Your task to perform on an android device: Go to internet settings Image 0: 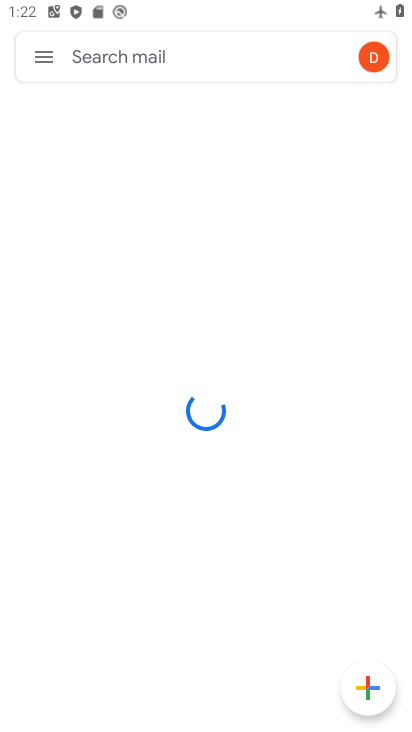
Step 0: press home button
Your task to perform on an android device: Go to internet settings Image 1: 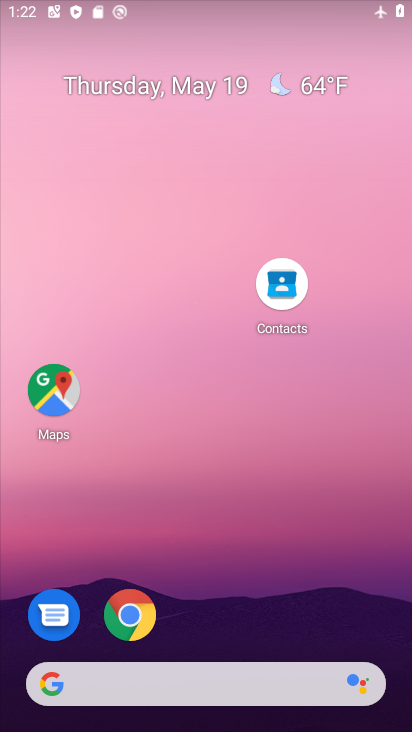
Step 1: drag from (254, 430) to (328, 18)
Your task to perform on an android device: Go to internet settings Image 2: 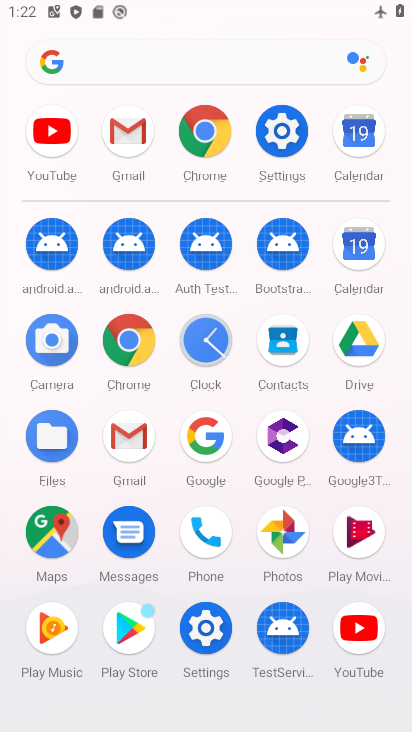
Step 2: click (283, 158)
Your task to perform on an android device: Go to internet settings Image 3: 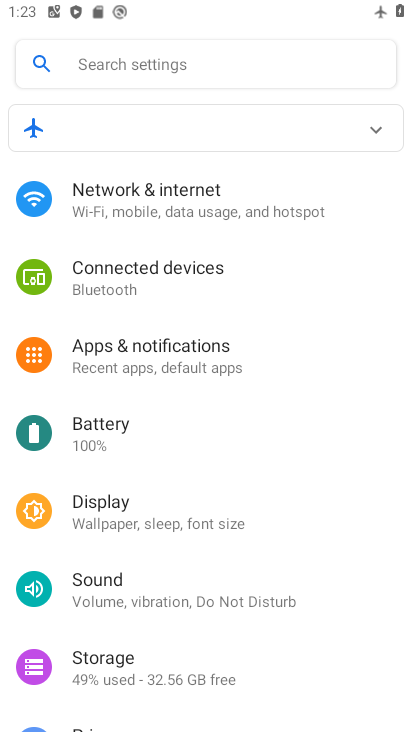
Step 3: click (230, 179)
Your task to perform on an android device: Go to internet settings Image 4: 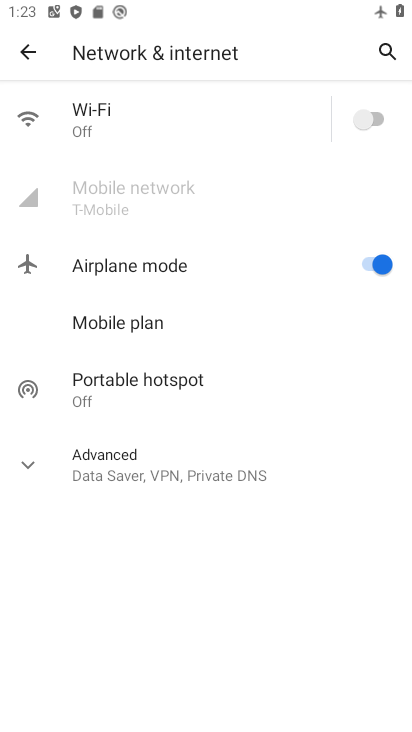
Step 4: task complete